Your task to perform on an android device: clear history in the chrome app Image 0: 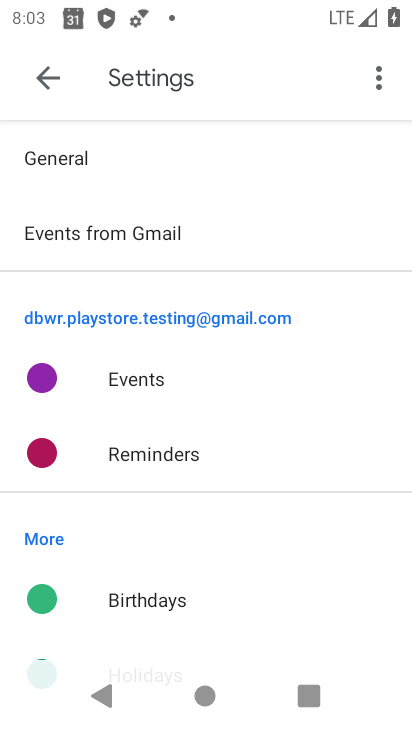
Step 0: press home button
Your task to perform on an android device: clear history in the chrome app Image 1: 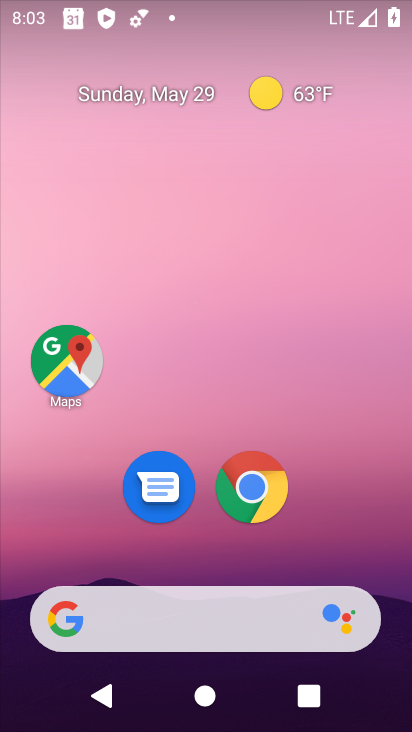
Step 1: drag from (218, 658) to (224, 94)
Your task to perform on an android device: clear history in the chrome app Image 2: 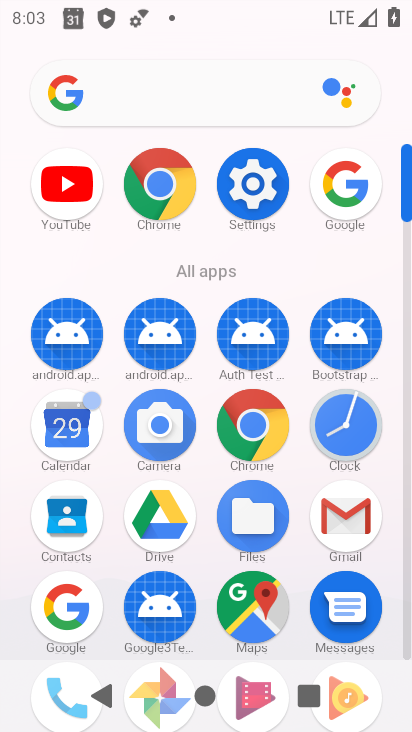
Step 2: drag from (274, 487) to (279, 238)
Your task to perform on an android device: clear history in the chrome app Image 3: 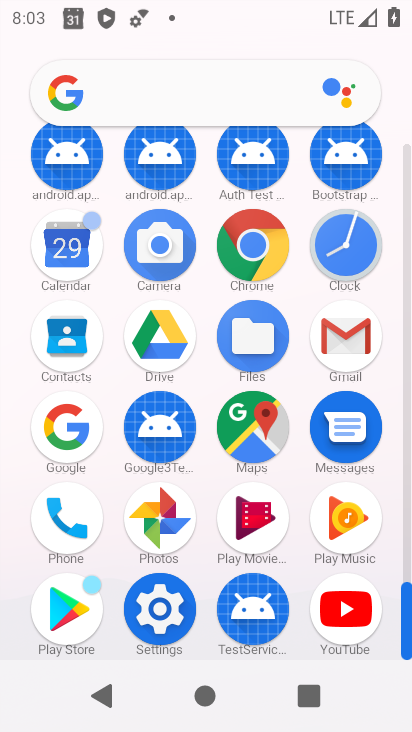
Step 3: click (246, 252)
Your task to perform on an android device: clear history in the chrome app Image 4: 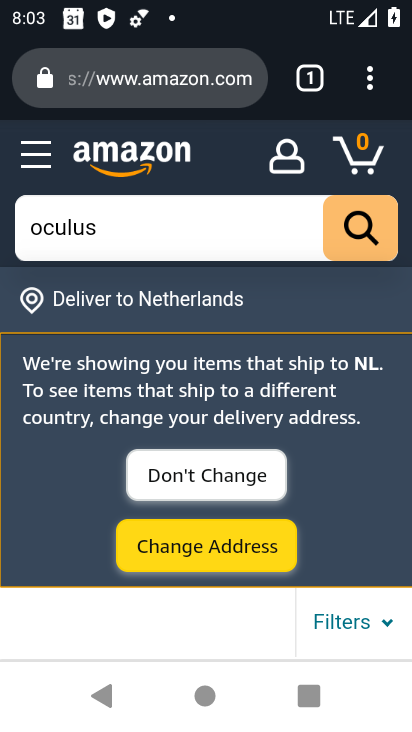
Step 4: click (390, 96)
Your task to perform on an android device: clear history in the chrome app Image 5: 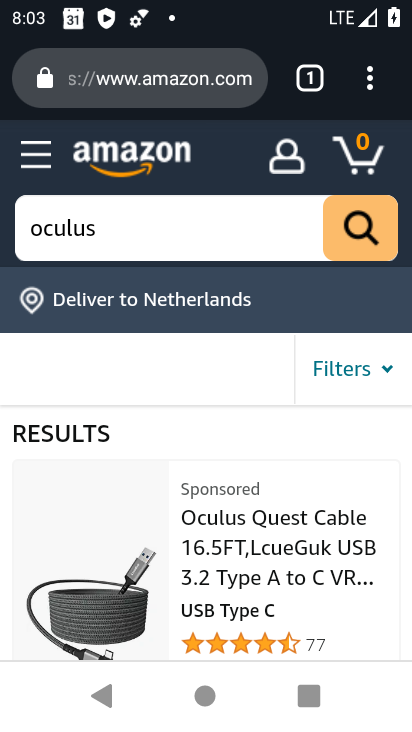
Step 5: click (368, 95)
Your task to perform on an android device: clear history in the chrome app Image 6: 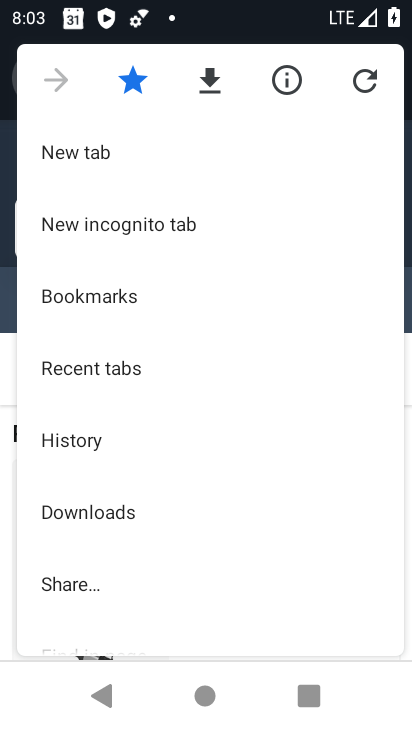
Step 6: click (102, 445)
Your task to perform on an android device: clear history in the chrome app Image 7: 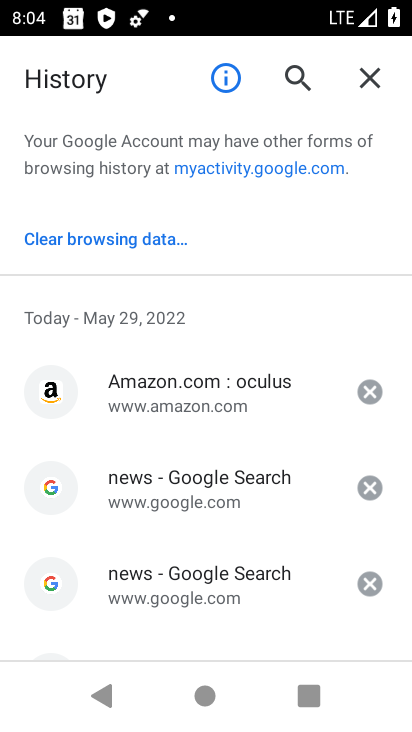
Step 7: click (120, 247)
Your task to perform on an android device: clear history in the chrome app Image 8: 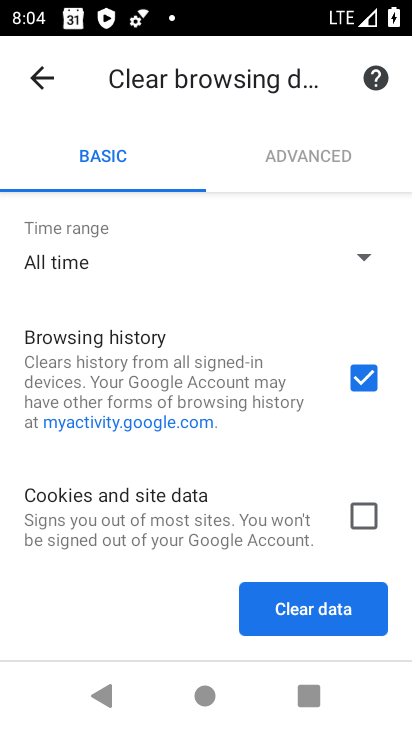
Step 8: click (345, 607)
Your task to perform on an android device: clear history in the chrome app Image 9: 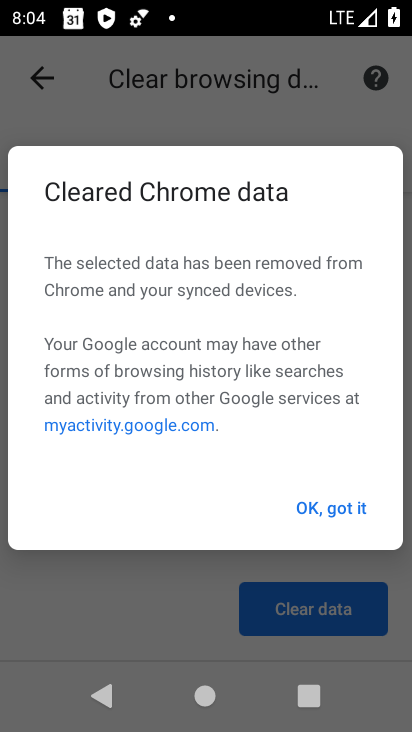
Step 9: click (342, 517)
Your task to perform on an android device: clear history in the chrome app Image 10: 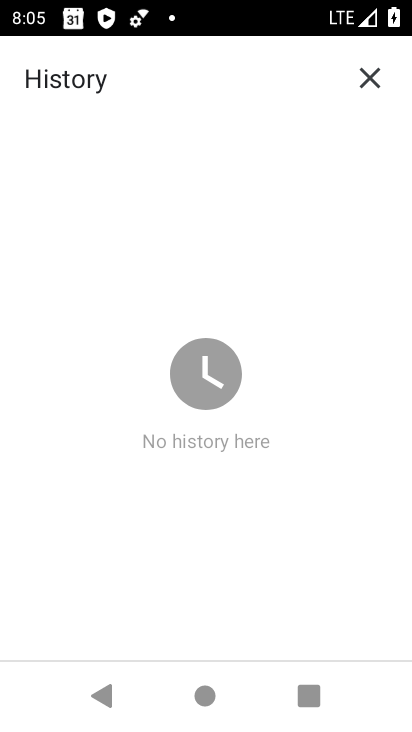
Step 10: task complete